Your task to perform on an android device: turn off wifi Image 0: 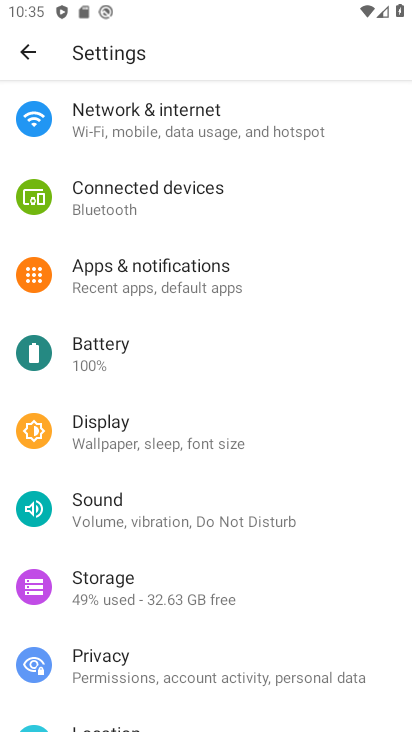
Step 0: task complete